Your task to perform on an android device: Go to Google Image 0: 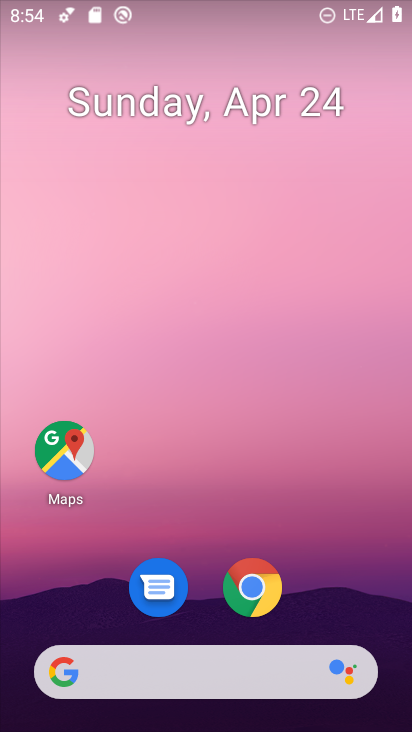
Step 0: drag from (349, 475) to (352, 177)
Your task to perform on an android device: Go to Google Image 1: 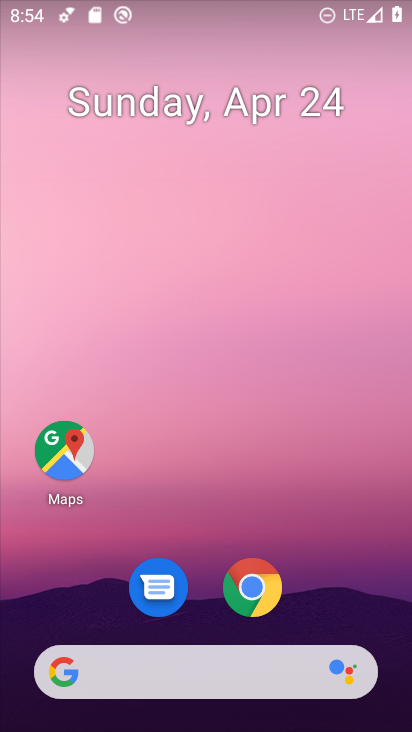
Step 1: drag from (372, 464) to (379, 169)
Your task to perform on an android device: Go to Google Image 2: 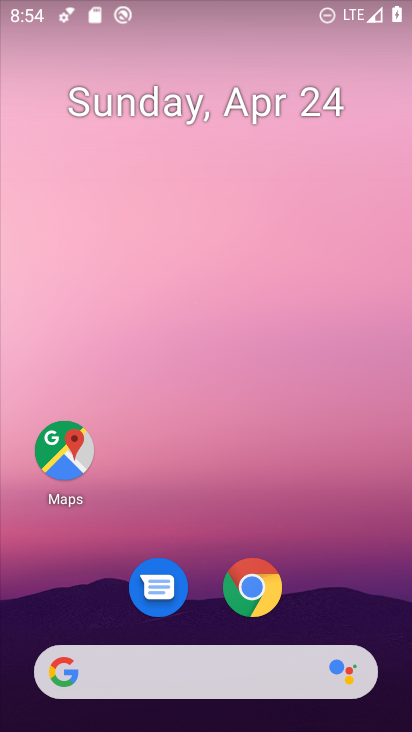
Step 2: drag from (363, 485) to (363, 172)
Your task to perform on an android device: Go to Google Image 3: 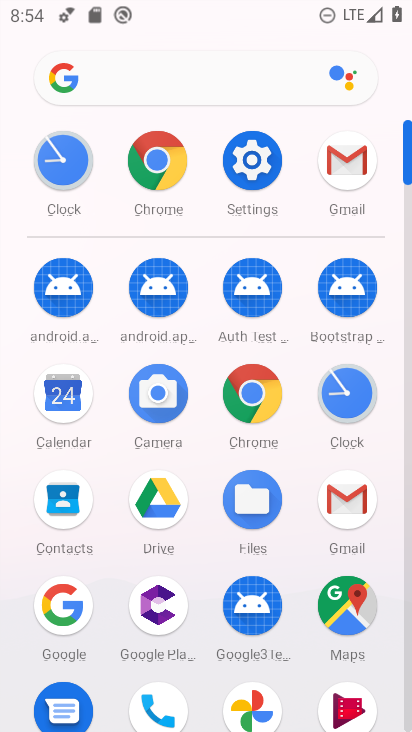
Step 3: click (58, 605)
Your task to perform on an android device: Go to Google Image 4: 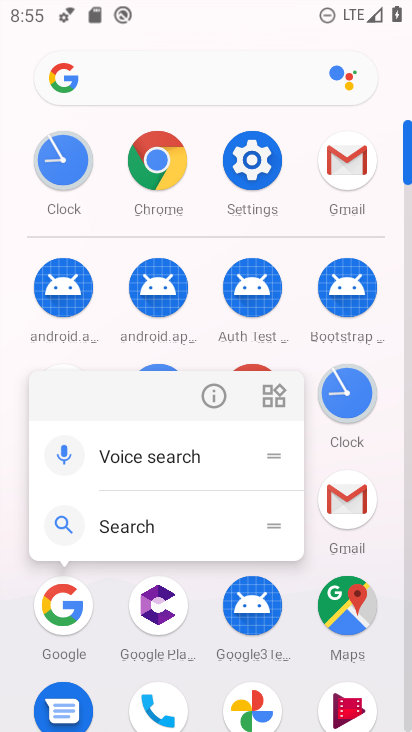
Step 4: click (59, 600)
Your task to perform on an android device: Go to Google Image 5: 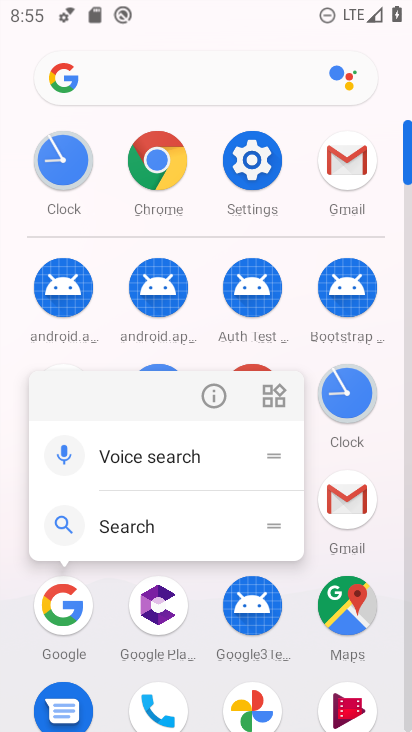
Step 5: click (59, 600)
Your task to perform on an android device: Go to Google Image 6: 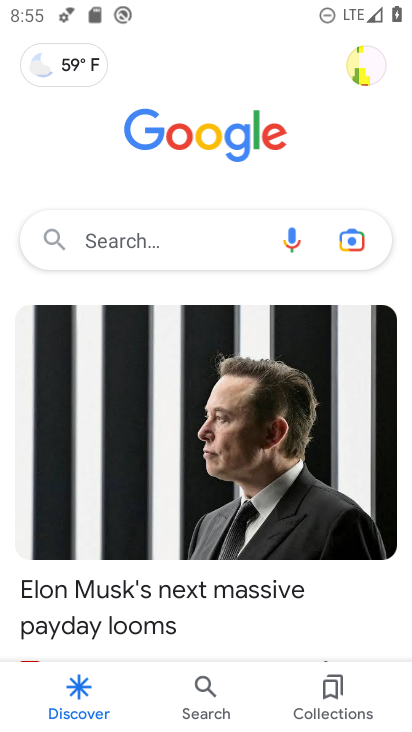
Step 6: task complete